Your task to perform on an android device: Show me popular games on the Play Store Image 0: 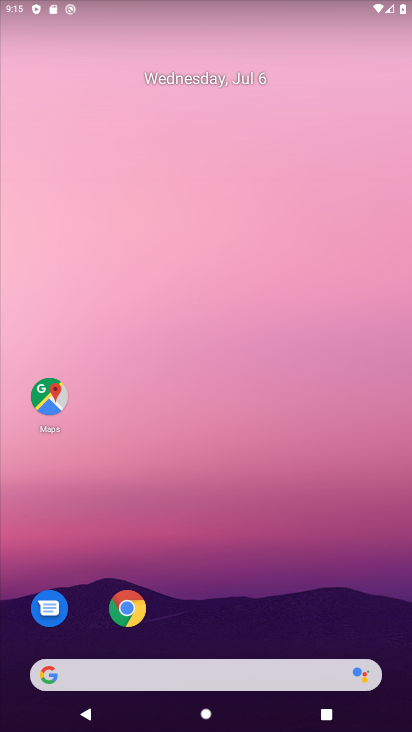
Step 0: drag from (196, 678) to (225, 8)
Your task to perform on an android device: Show me popular games on the Play Store Image 1: 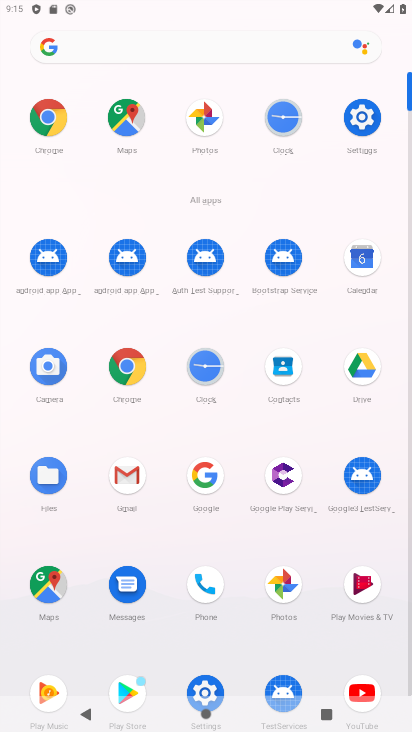
Step 1: click (130, 681)
Your task to perform on an android device: Show me popular games on the Play Store Image 2: 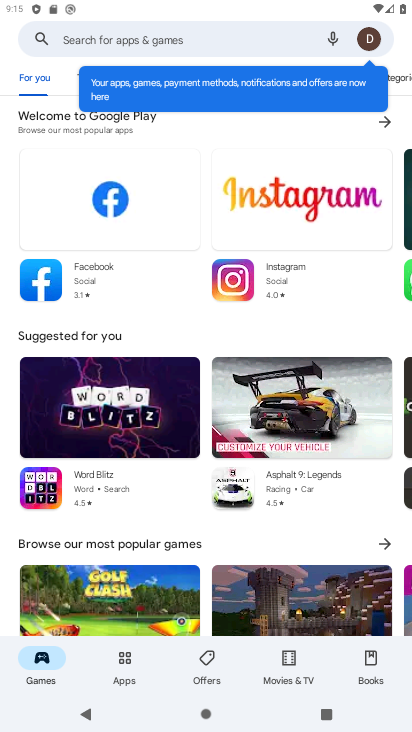
Step 2: click (178, 545)
Your task to perform on an android device: Show me popular games on the Play Store Image 3: 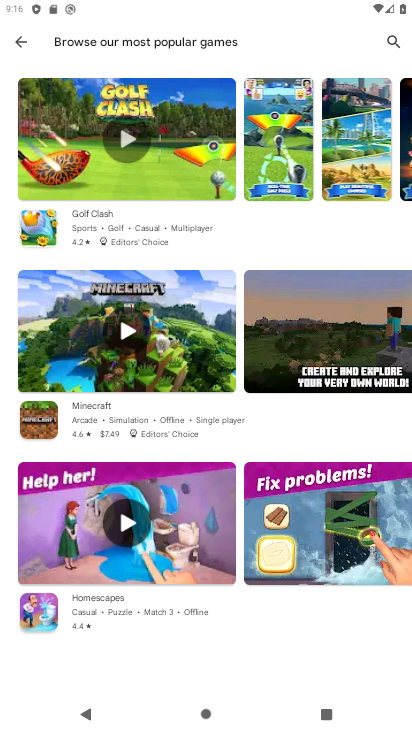
Step 3: task complete